Your task to perform on an android device: Go to Android settings Image 0: 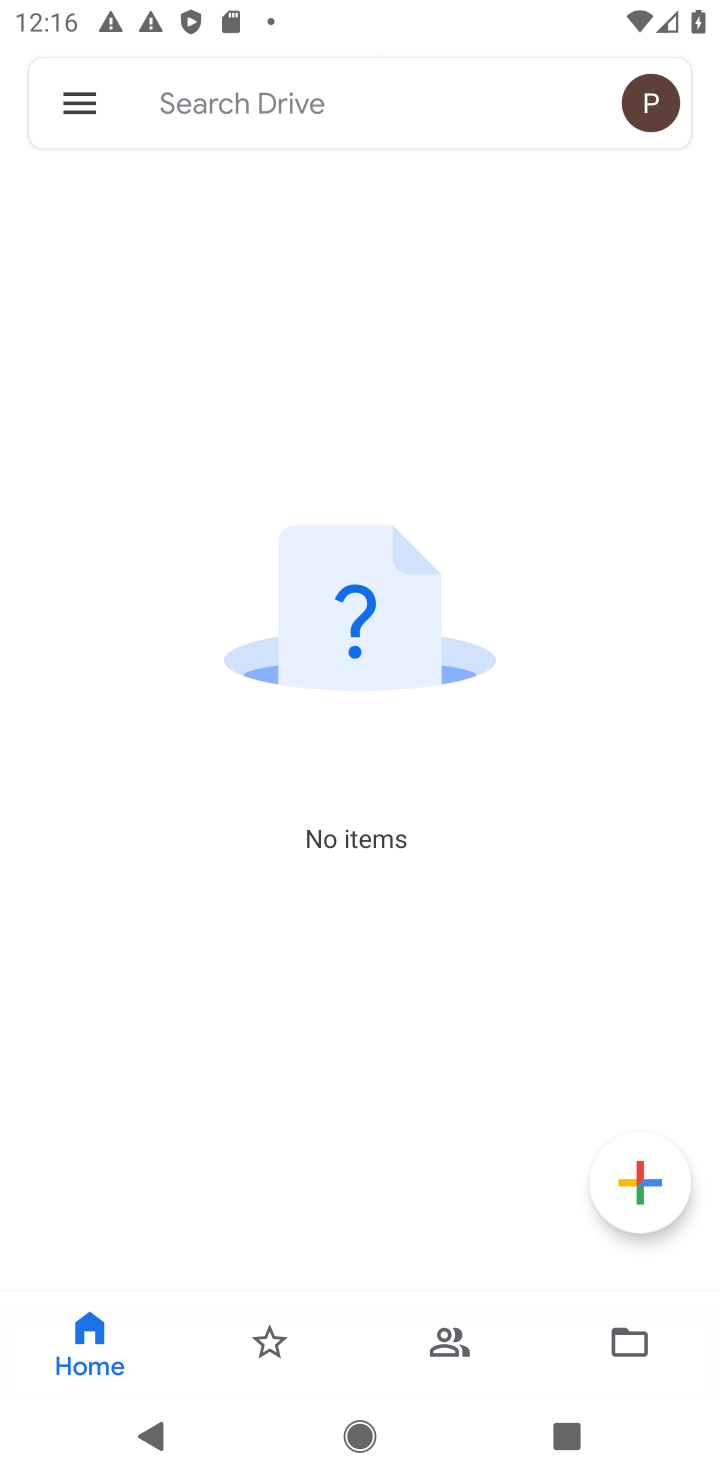
Step 0: press home button
Your task to perform on an android device: Go to Android settings Image 1: 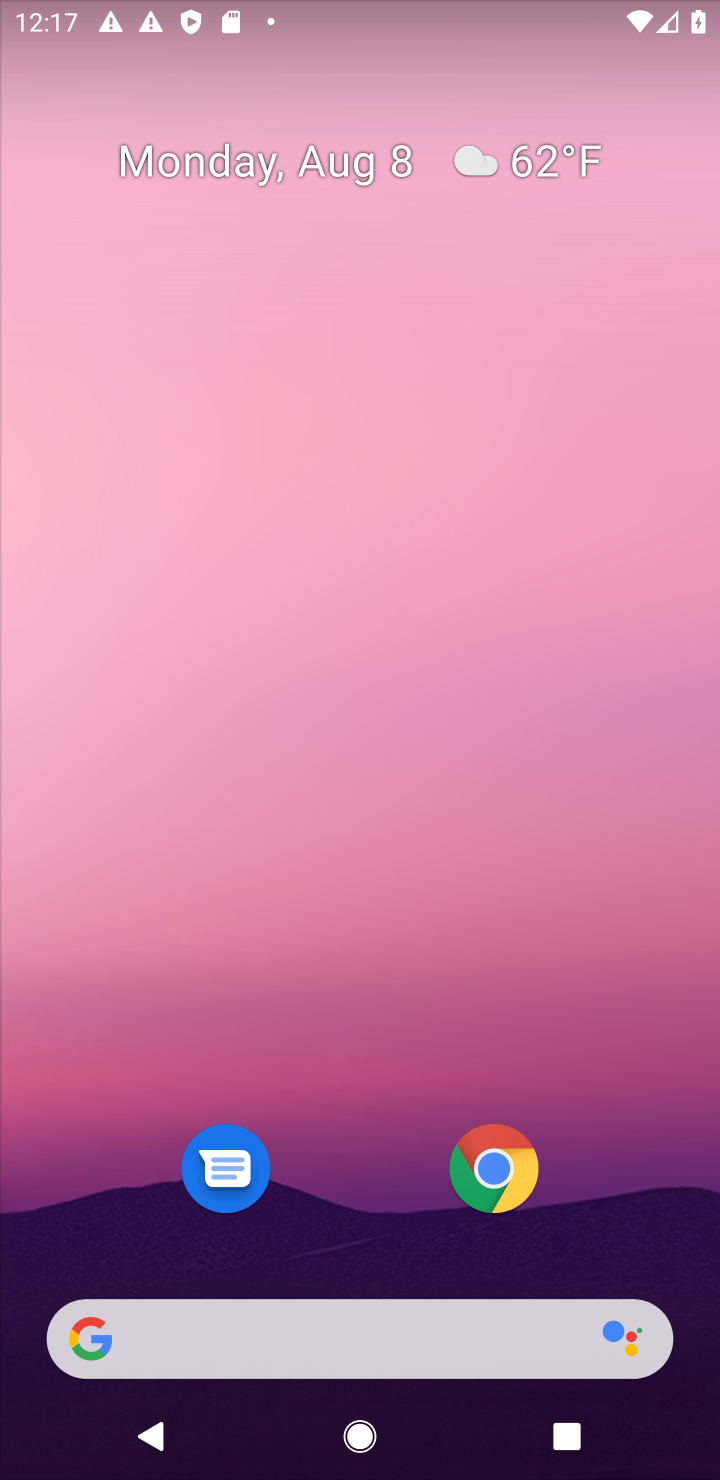
Step 1: drag from (385, 1246) to (364, 502)
Your task to perform on an android device: Go to Android settings Image 2: 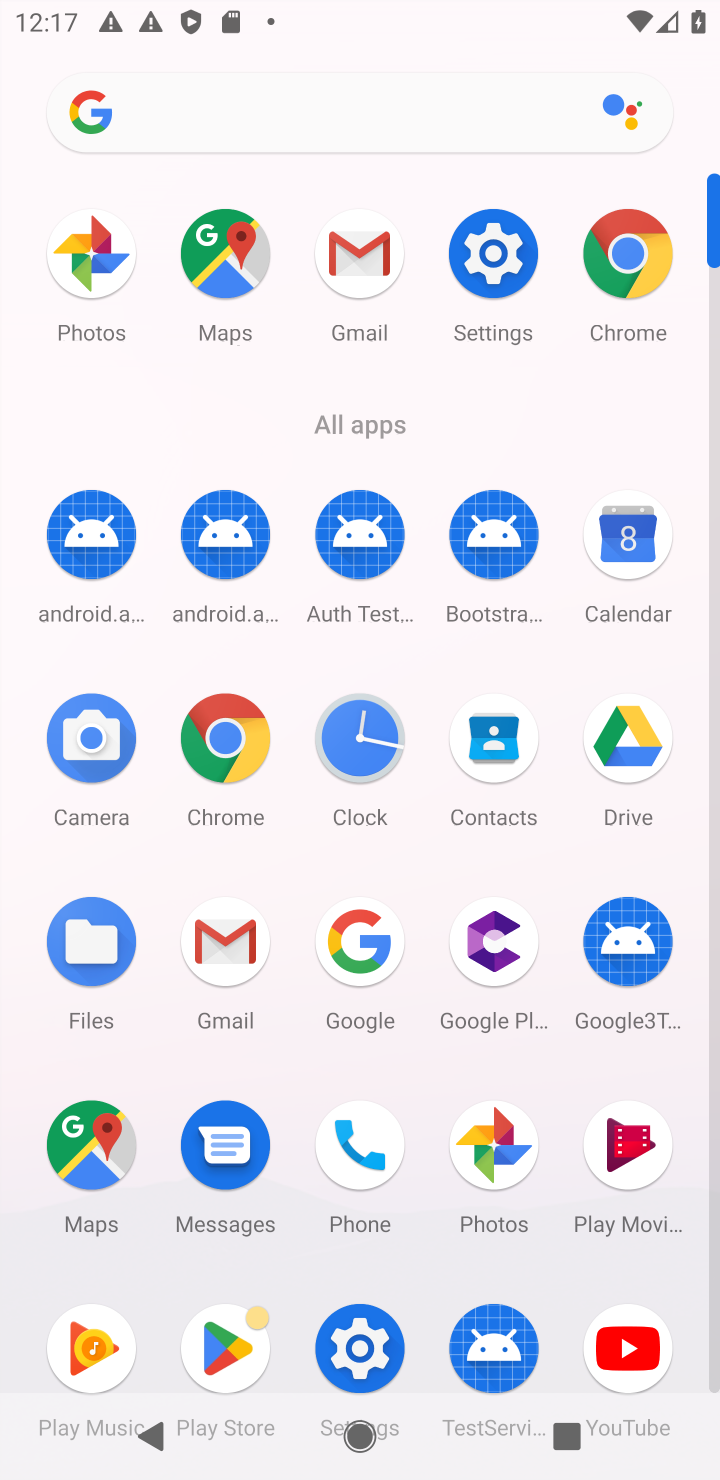
Step 2: click (454, 258)
Your task to perform on an android device: Go to Android settings Image 3: 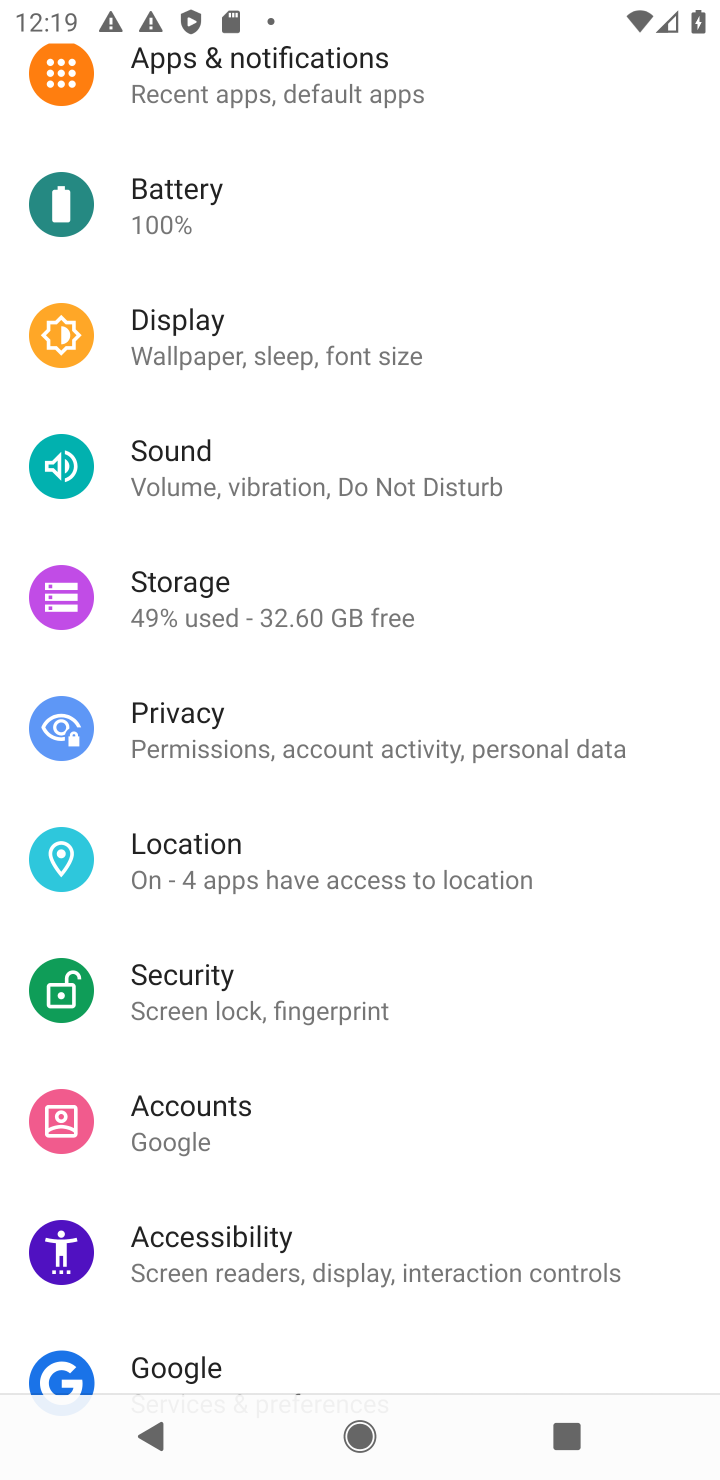
Step 3: task complete